Your task to perform on an android device: toggle improve location accuracy Image 0: 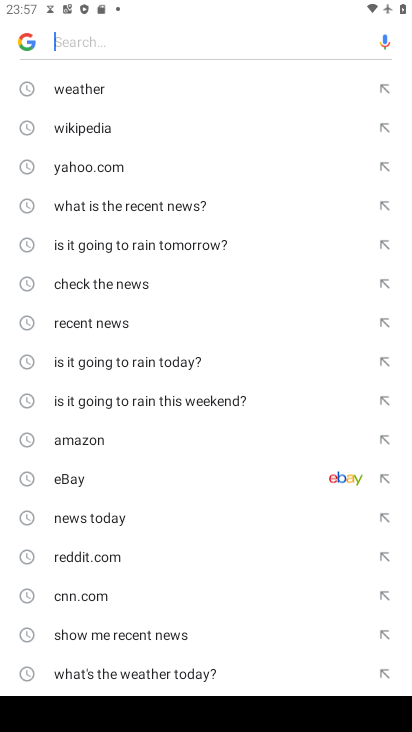
Step 0: press home button
Your task to perform on an android device: toggle improve location accuracy Image 1: 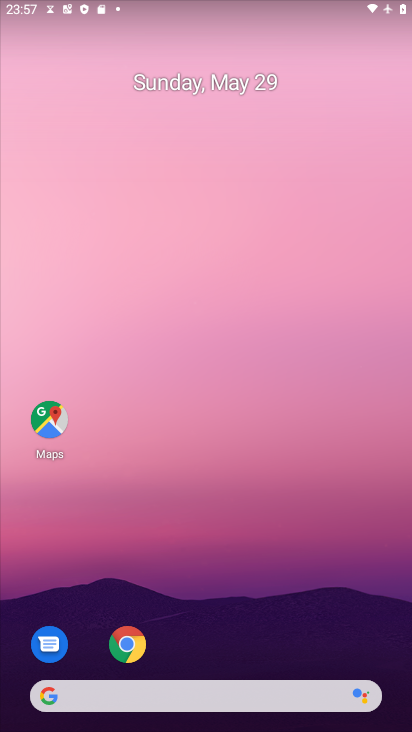
Step 1: drag from (257, 607) to (243, 141)
Your task to perform on an android device: toggle improve location accuracy Image 2: 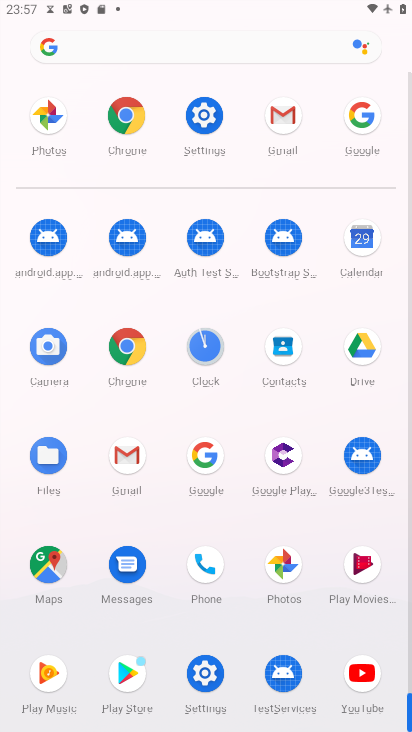
Step 2: click (202, 115)
Your task to perform on an android device: toggle improve location accuracy Image 3: 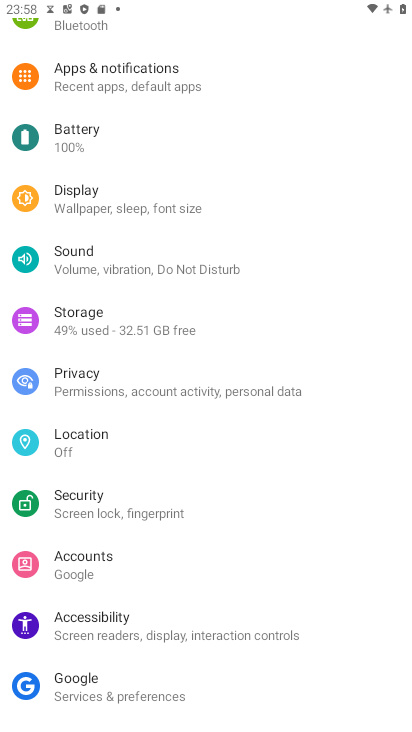
Step 3: click (103, 436)
Your task to perform on an android device: toggle improve location accuracy Image 4: 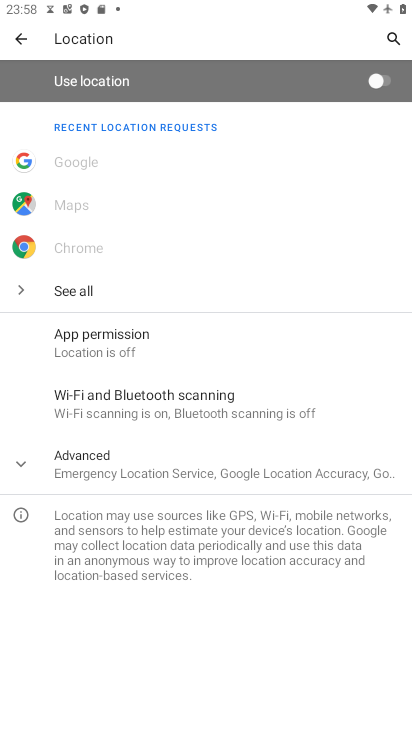
Step 4: click (379, 79)
Your task to perform on an android device: toggle improve location accuracy Image 5: 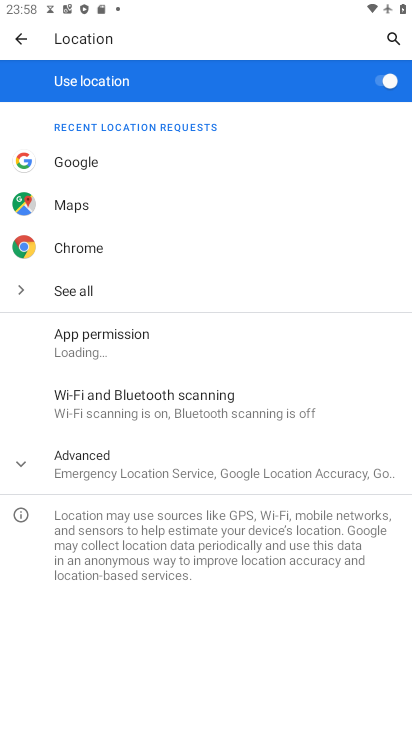
Step 5: click (129, 461)
Your task to perform on an android device: toggle improve location accuracy Image 6: 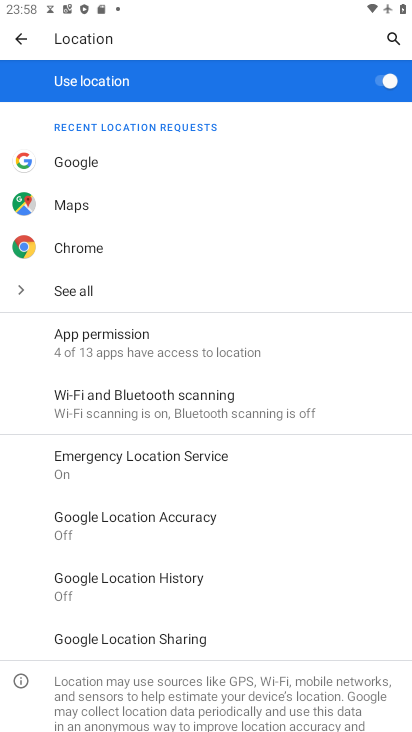
Step 6: click (171, 517)
Your task to perform on an android device: toggle improve location accuracy Image 7: 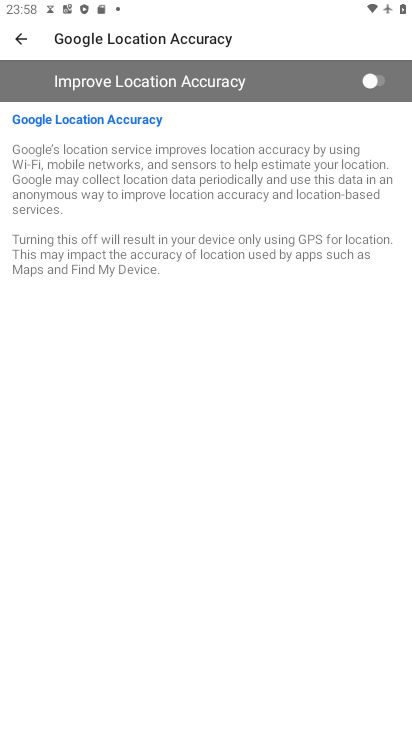
Step 7: click (378, 75)
Your task to perform on an android device: toggle improve location accuracy Image 8: 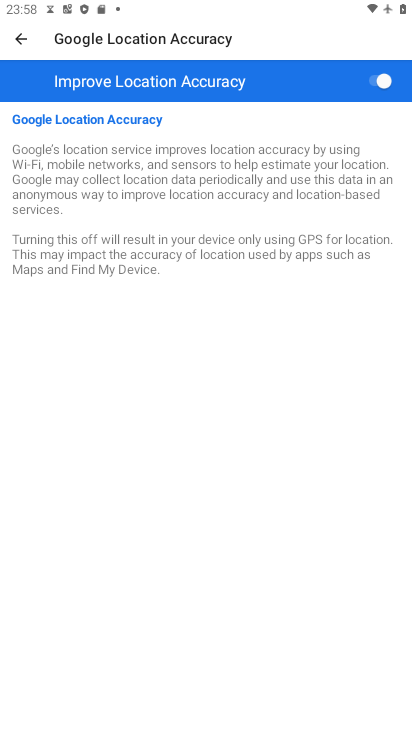
Step 8: task complete